Your task to perform on an android device: turn off location history Image 0: 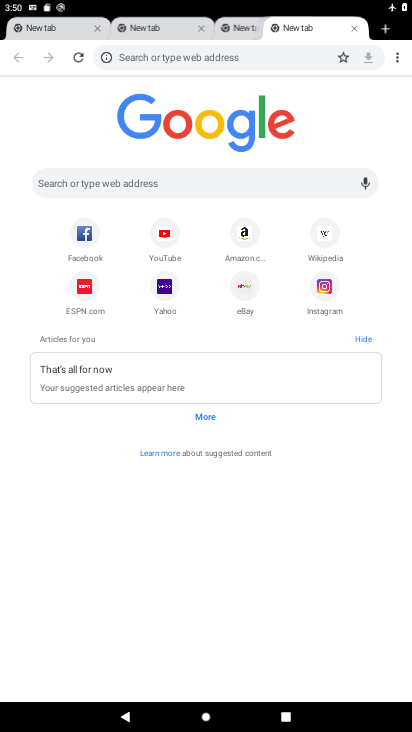
Step 0: press home button
Your task to perform on an android device: turn off location history Image 1: 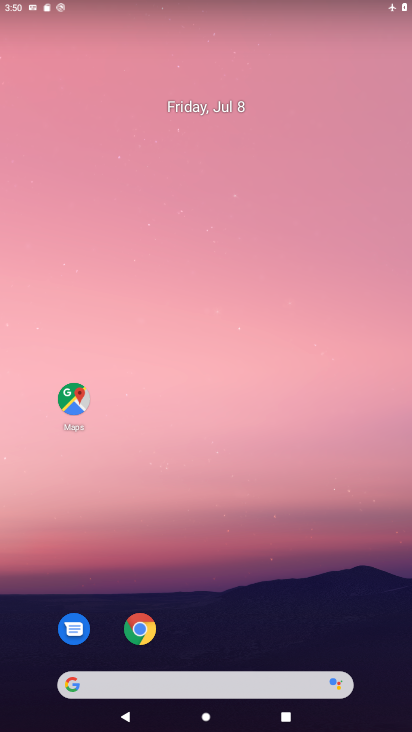
Step 1: drag from (319, 626) to (319, 191)
Your task to perform on an android device: turn off location history Image 2: 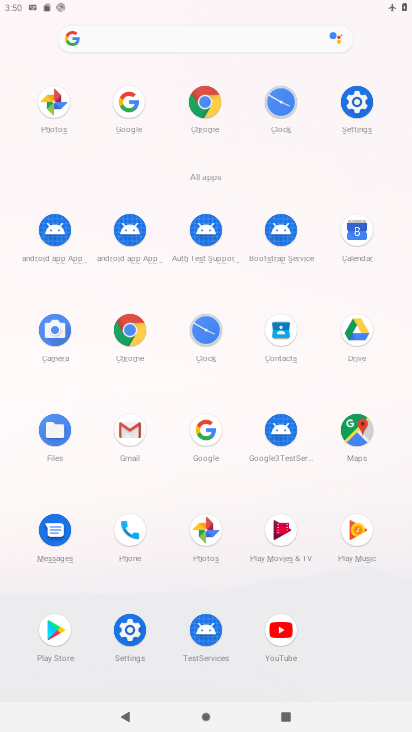
Step 2: click (365, 99)
Your task to perform on an android device: turn off location history Image 3: 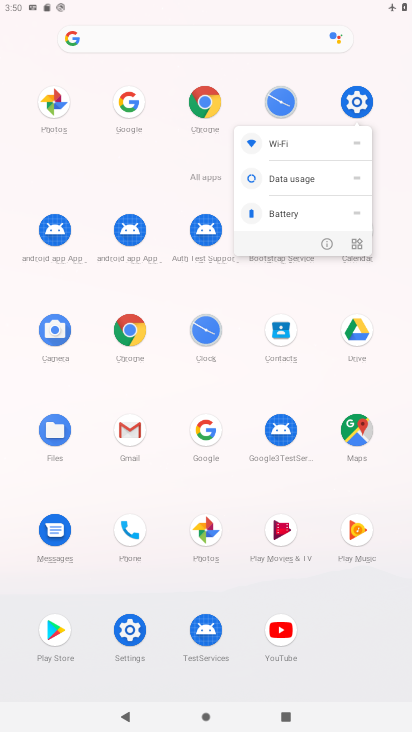
Step 3: click (351, 104)
Your task to perform on an android device: turn off location history Image 4: 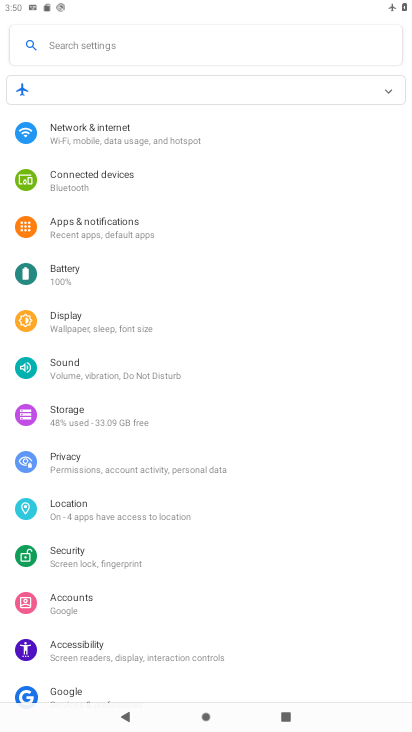
Step 4: click (101, 508)
Your task to perform on an android device: turn off location history Image 5: 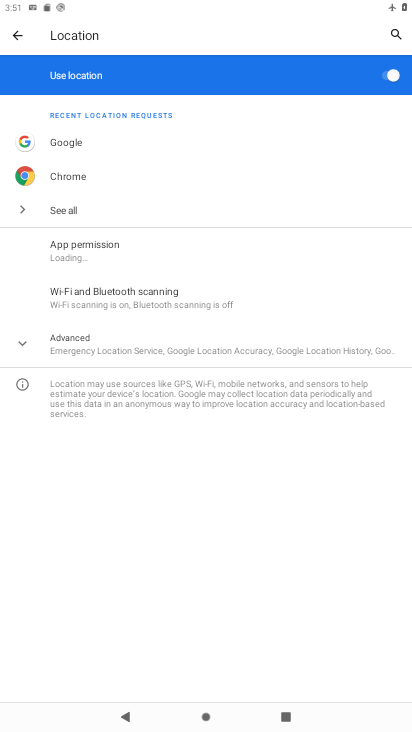
Step 5: click (157, 345)
Your task to perform on an android device: turn off location history Image 6: 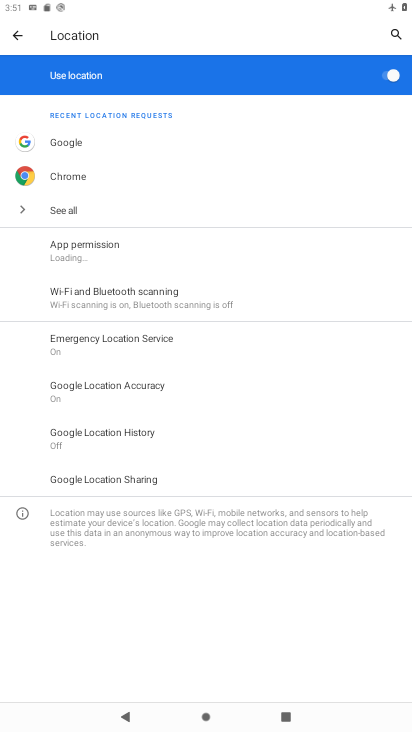
Step 6: click (149, 433)
Your task to perform on an android device: turn off location history Image 7: 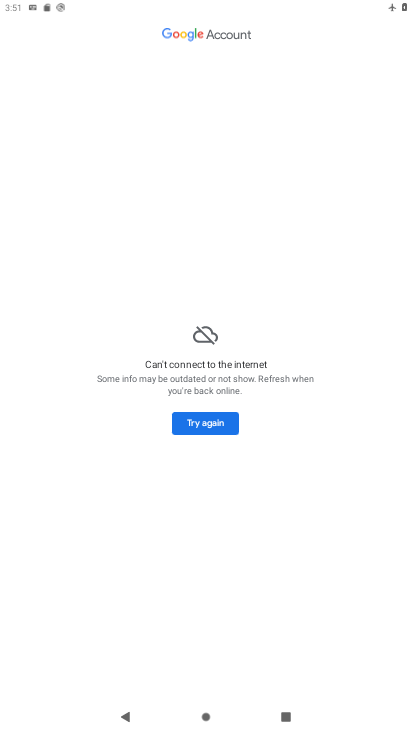
Step 7: task complete